Your task to perform on an android device: Show me popular videos on Youtube Image 0: 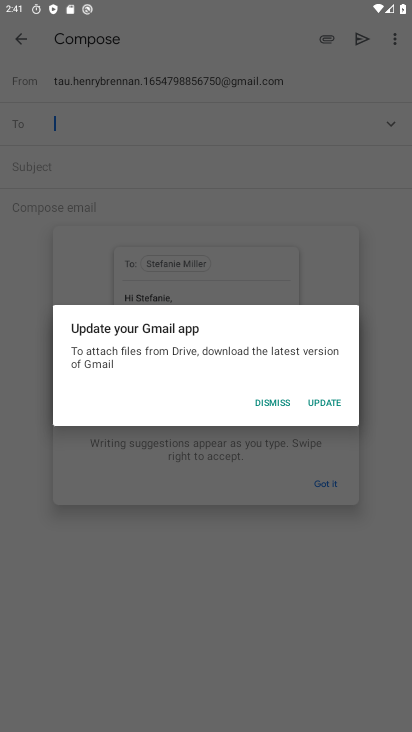
Step 0: press home button
Your task to perform on an android device: Show me popular videos on Youtube Image 1: 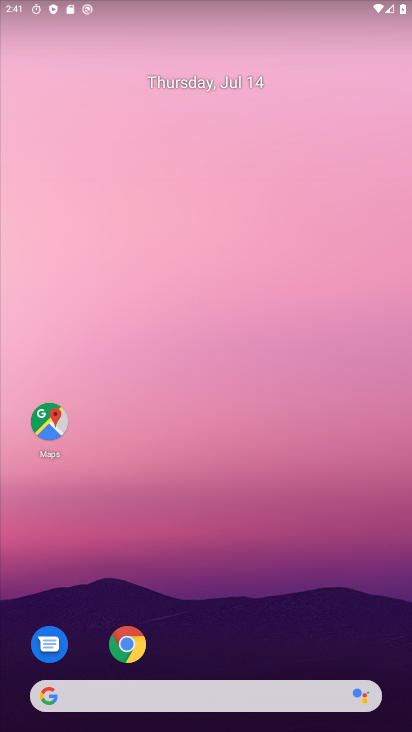
Step 1: drag from (92, 402) to (124, 258)
Your task to perform on an android device: Show me popular videos on Youtube Image 2: 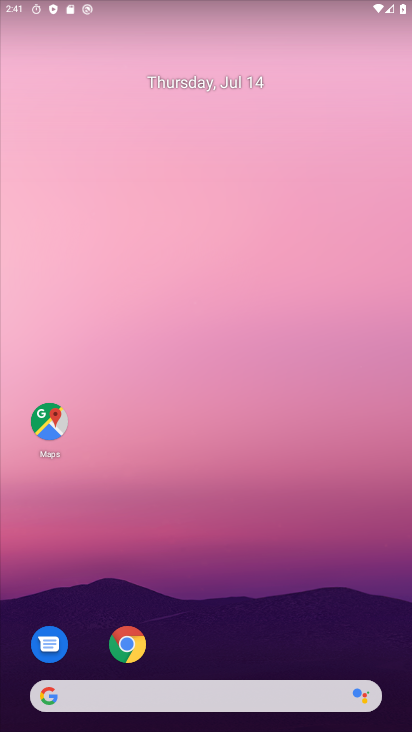
Step 2: drag from (56, 683) to (238, 84)
Your task to perform on an android device: Show me popular videos on Youtube Image 3: 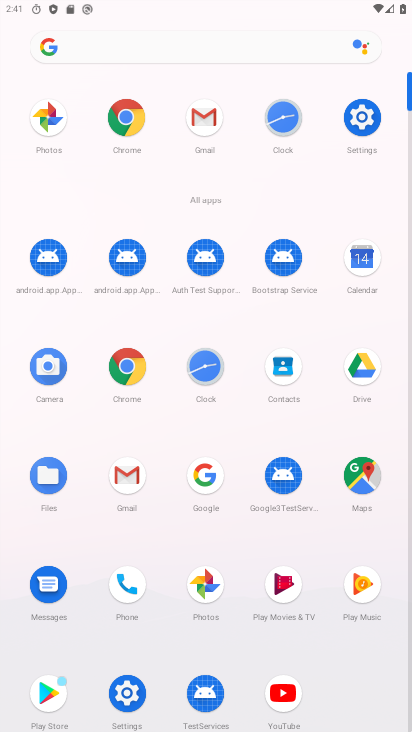
Step 3: click (288, 693)
Your task to perform on an android device: Show me popular videos on Youtube Image 4: 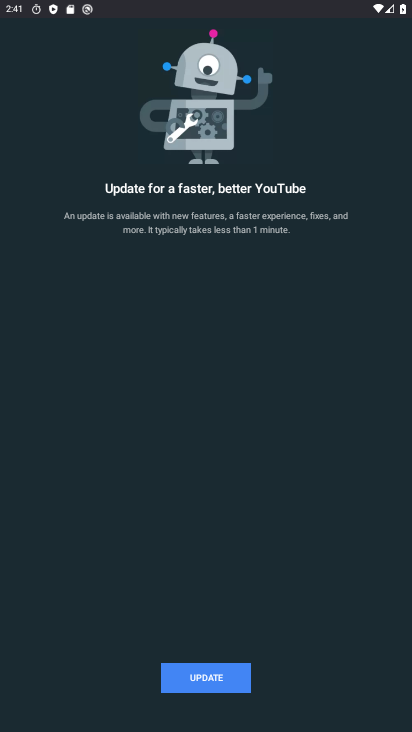
Step 4: click (185, 671)
Your task to perform on an android device: Show me popular videos on Youtube Image 5: 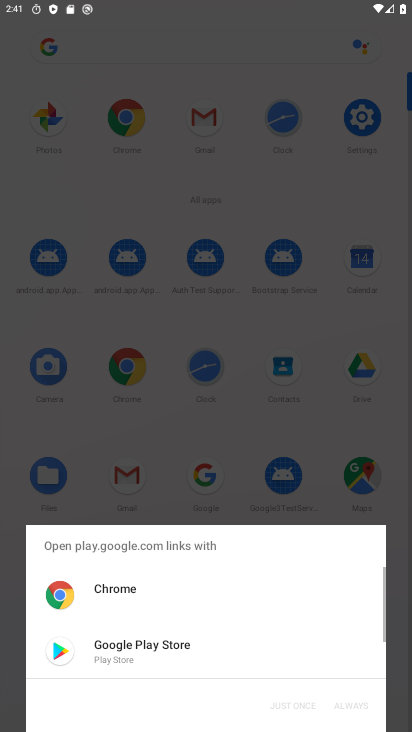
Step 5: click (181, 641)
Your task to perform on an android device: Show me popular videos on Youtube Image 6: 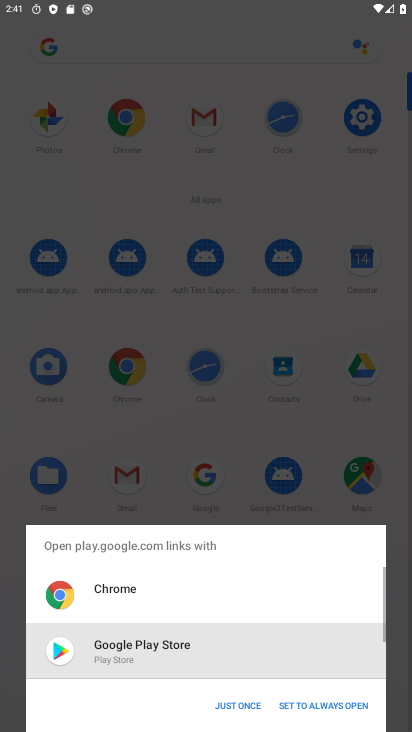
Step 6: click (247, 699)
Your task to perform on an android device: Show me popular videos on Youtube Image 7: 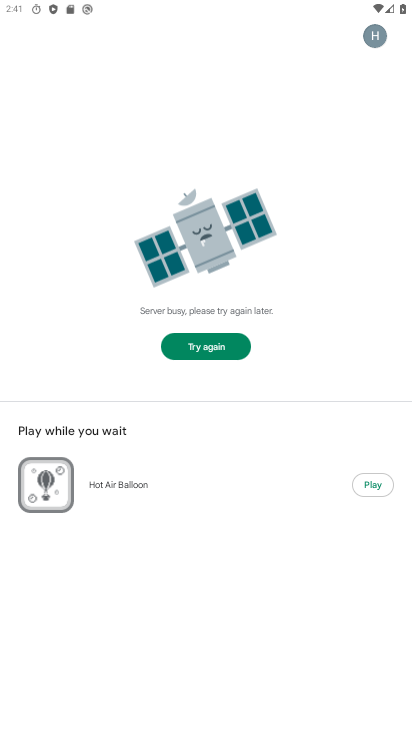
Step 7: task complete